Your task to perform on an android device: check out phone information Image 0: 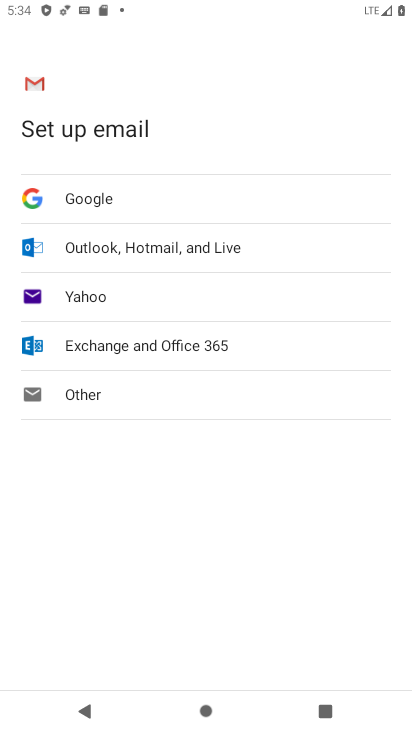
Step 0: press home button
Your task to perform on an android device: check out phone information Image 1: 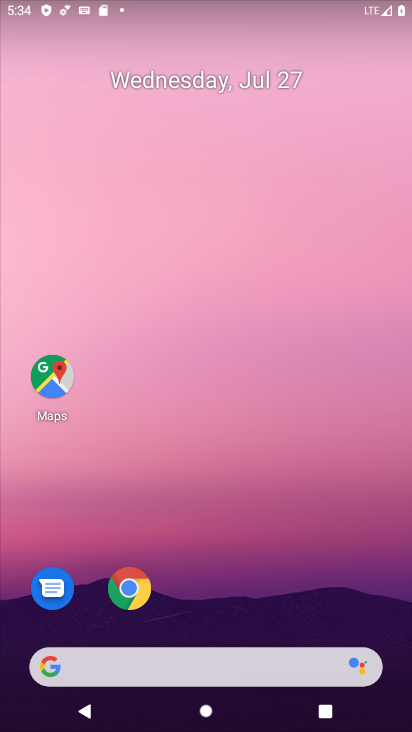
Step 1: drag from (283, 657) to (368, 39)
Your task to perform on an android device: check out phone information Image 2: 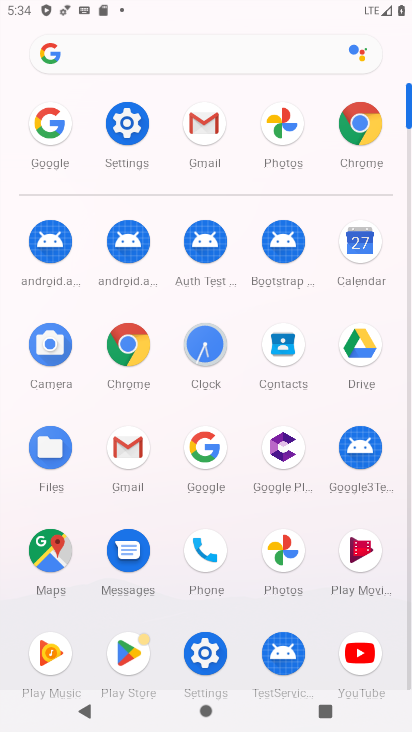
Step 2: click (132, 118)
Your task to perform on an android device: check out phone information Image 3: 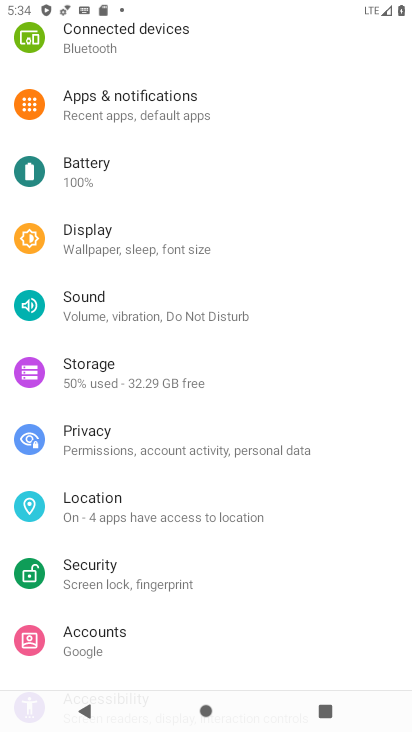
Step 3: drag from (143, 583) to (270, 124)
Your task to perform on an android device: check out phone information Image 4: 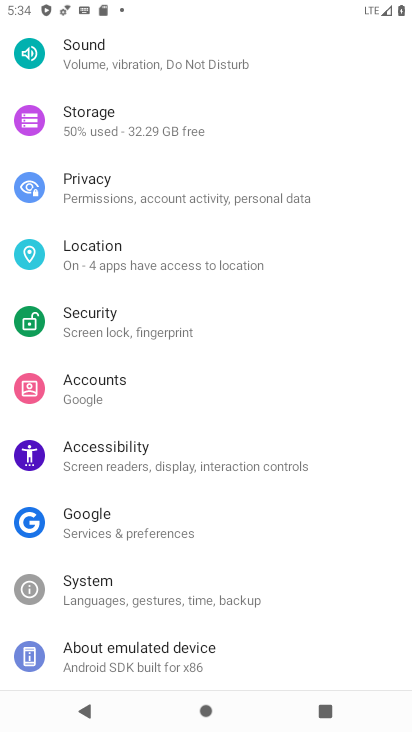
Step 4: click (199, 672)
Your task to perform on an android device: check out phone information Image 5: 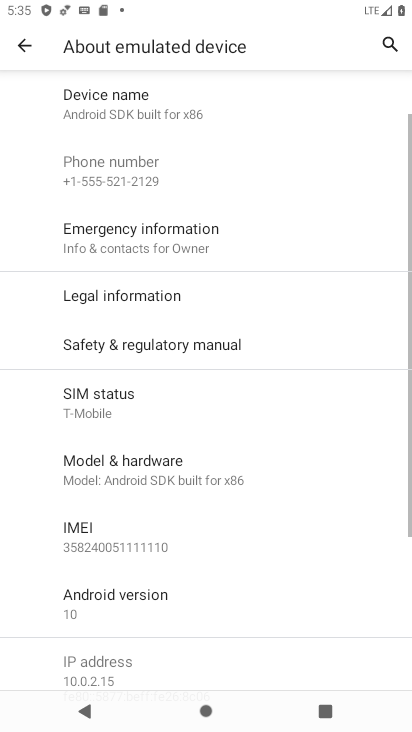
Step 5: task complete